Your task to perform on an android device: Turn off the flashlight Image 0: 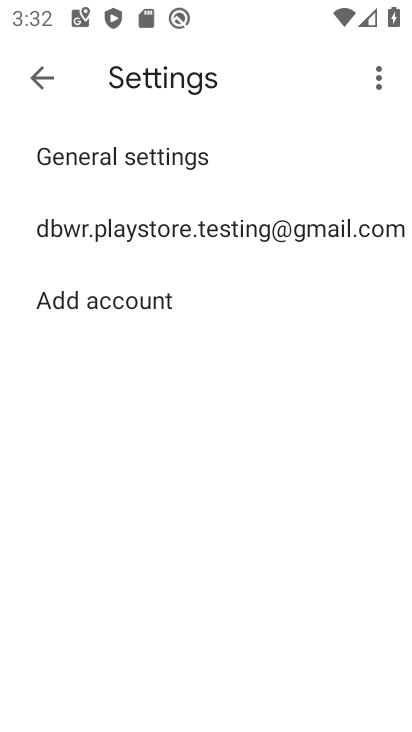
Step 0: press home button
Your task to perform on an android device: Turn off the flashlight Image 1: 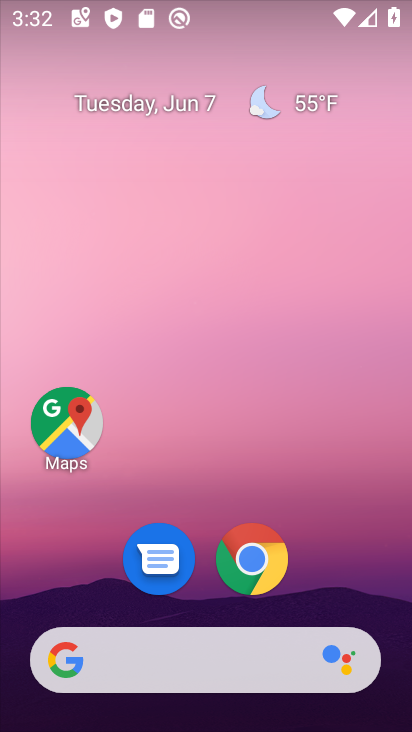
Step 1: drag from (214, 716) to (214, 205)
Your task to perform on an android device: Turn off the flashlight Image 2: 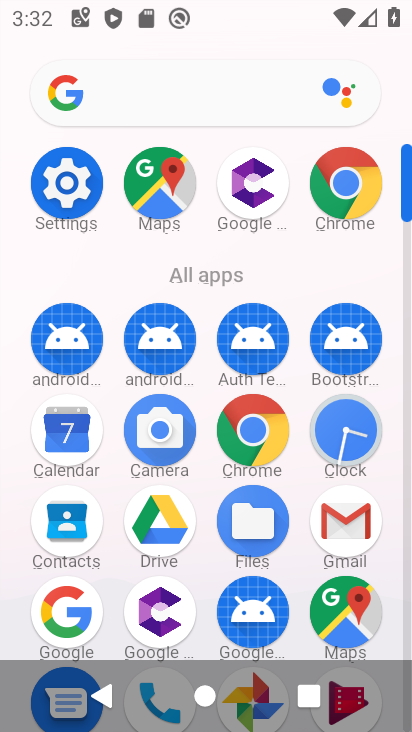
Step 2: click (48, 177)
Your task to perform on an android device: Turn off the flashlight Image 3: 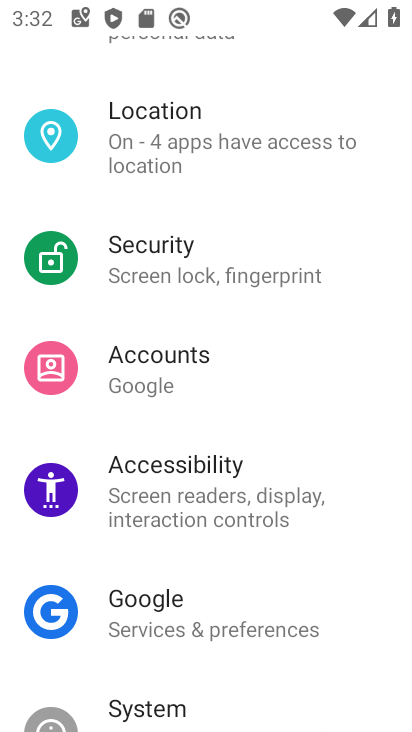
Step 3: task complete